Your task to perform on an android device: turn off smart reply in the gmail app Image 0: 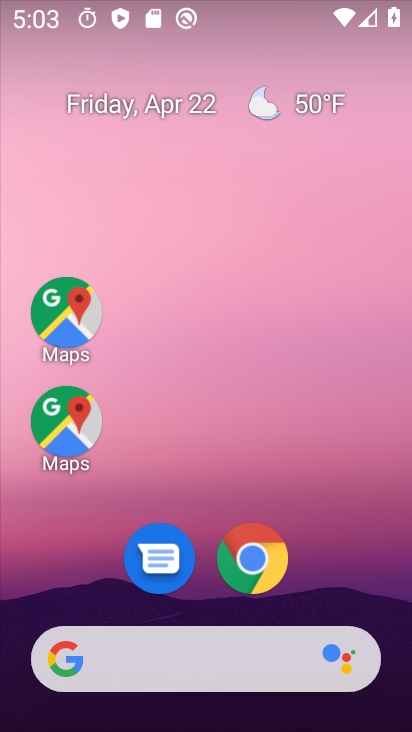
Step 0: drag from (315, 584) to (297, 223)
Your task to perform on an android device: turn off smart reply in the gmail app Image 1: 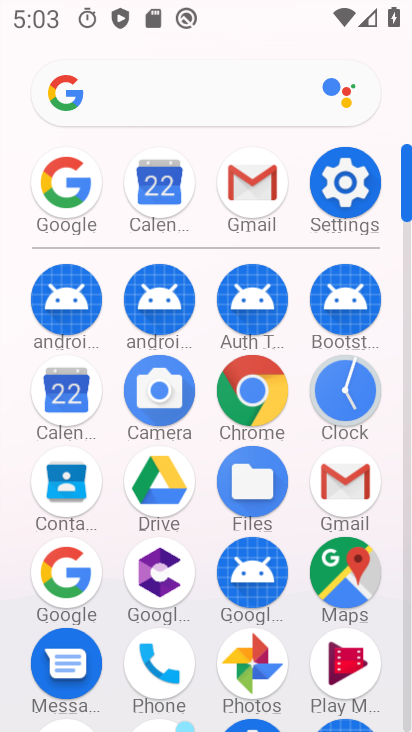
Step 1: click (251, 197)
Your task to perform on an android device: turn off smart reply in the gmail app Image 2: 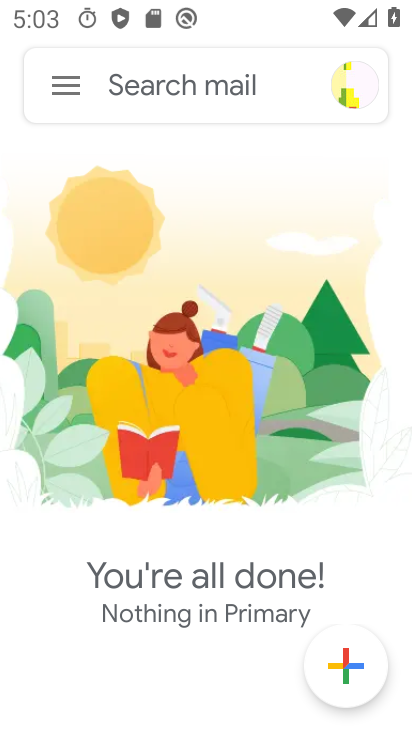
Step 2: click (82, 98)
Your task to perform on an android device: turn off smart reply in the gmail app Image 3: 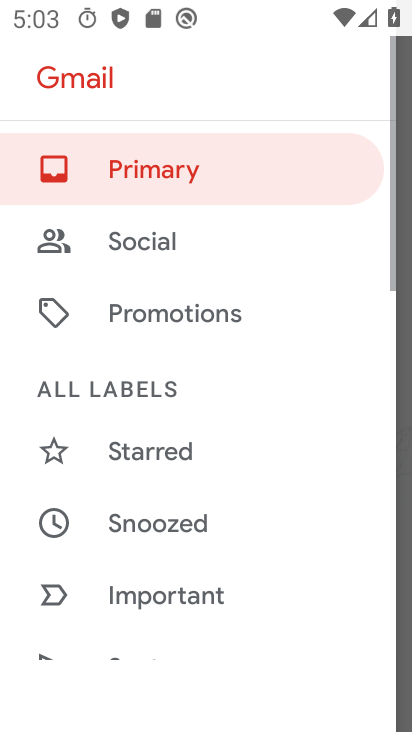
Step 3: drag from (175, 542) to (202, 235)
Your task to perform on an android device: turn off smart reply in the gmail app Image 4: 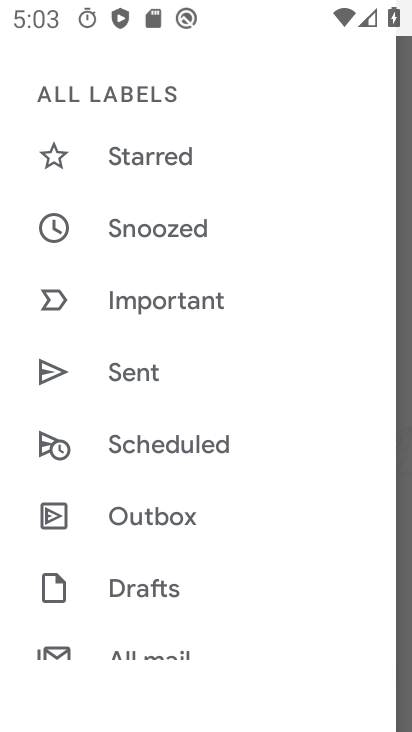
Step 4: drag from (187, 592) to (268, 245)
Your task to perform on an android device: turn off smart reply in the gmail app Image 5: 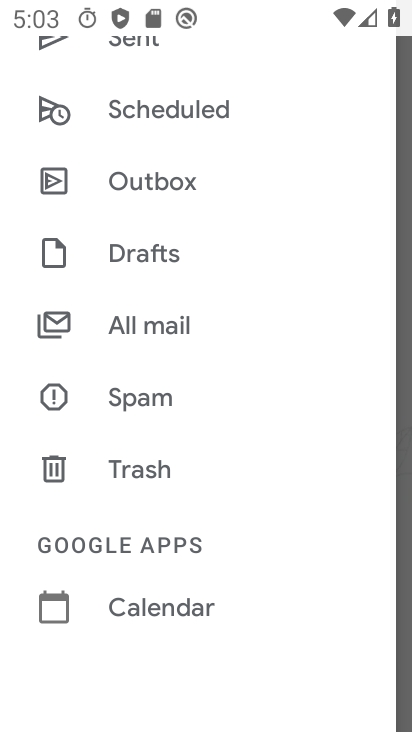
Step 5: drag from (192, 600) to (240, 245)
Your task to perform on an android device: turn off smart reply in the gmail app Image 6: 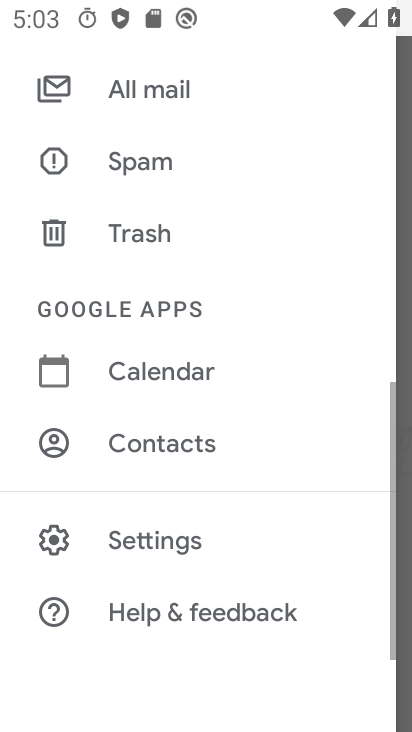
Step 6: click (154, 541)
Your task to perform on an android device: turn off smart reply in the gmail app Image 7: 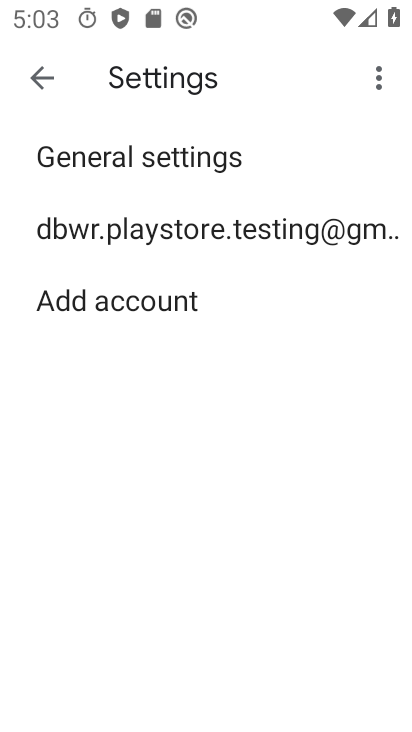
Step 7: click (247, 231)
Your task to perform on an android device: turn off smart reply in the gmail app Image 8: 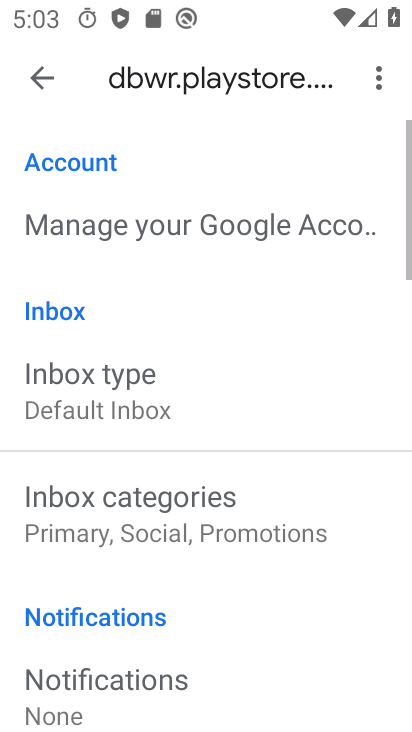
Step 8: task complete